Your task to perform on an android device: Go to accessibility settings Image 0: 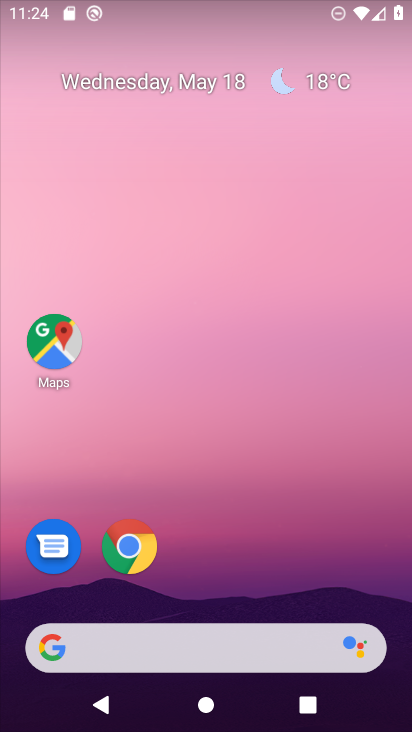
Step 0: drag from (231, 727) to (233, 254)
Your task to perform on an android device: Go to accessibility settings Image 1: 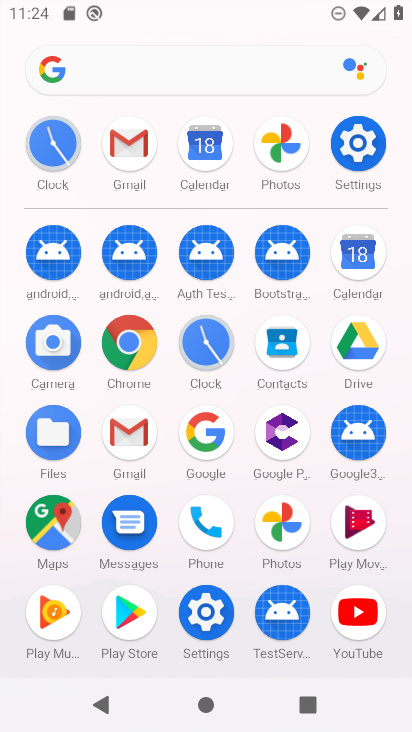
Step 1: click (361, 137)
Your task to perform on an android device: Go to accessibility settings Image 2: 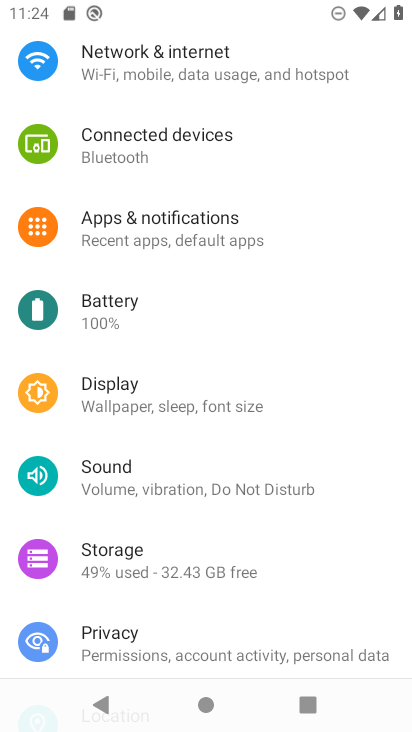
Step 2: drag from (173, 619) to (174, 275)
Your task to perform on an android device: Go to accessibility settings Image 3: 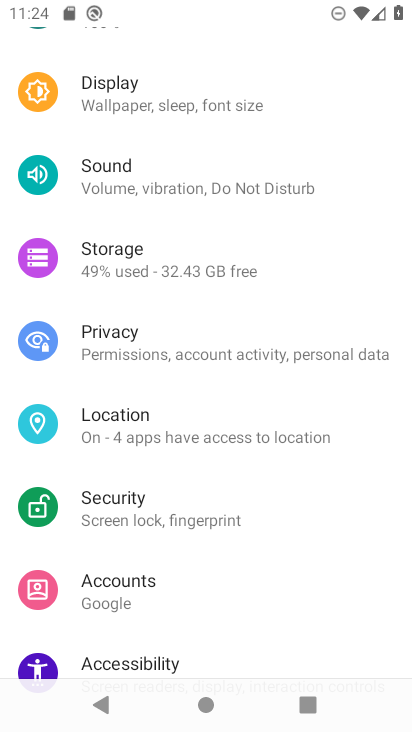
Step 3: drag from (143, 635) to (150, 332)
Your task to perform on an android device: Go to accessibility settings Image 4: 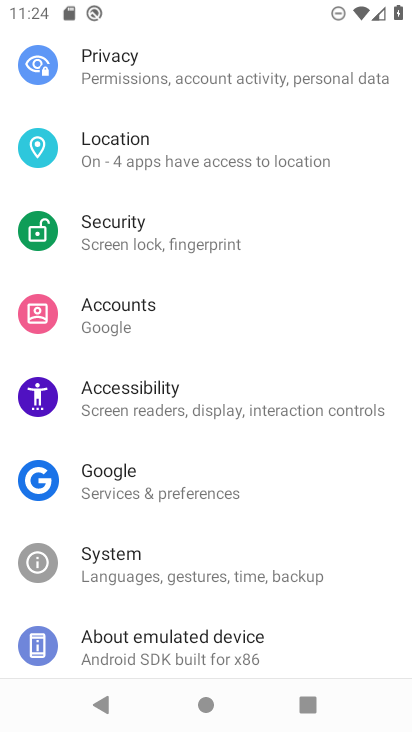
Step 4: click (142, 393)
Your task to perform on an android device: Go to accessibility settings Image 5: 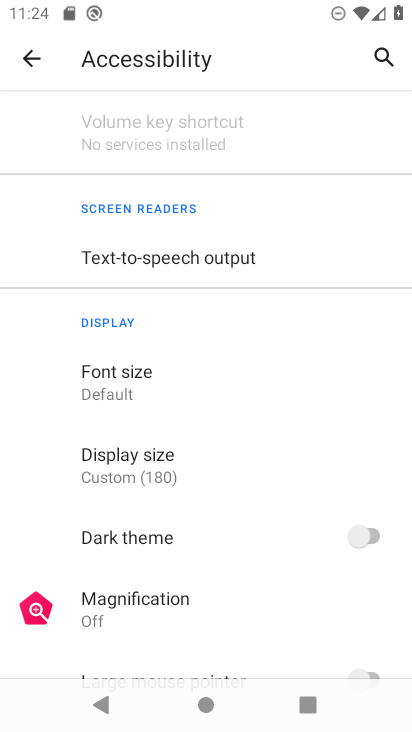
Step 5: task complete